Your task to perform on an android device: clear all cookies in the chrome app Image 0: 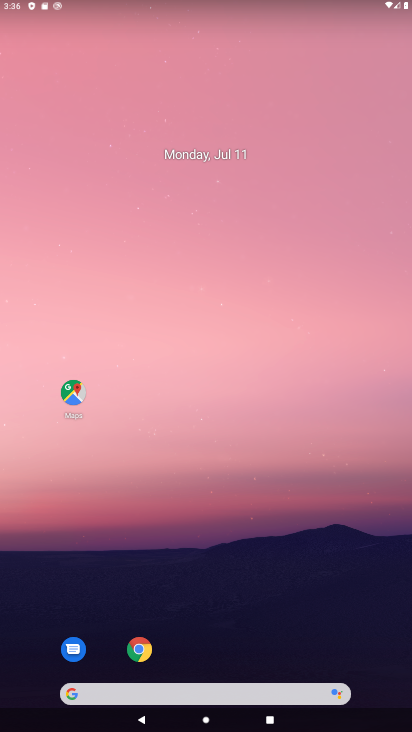
Step 0: drag from (196, 611) to (158, 181)
Your task to perform on an android device: clear all cookies in the chrome app Image 1: 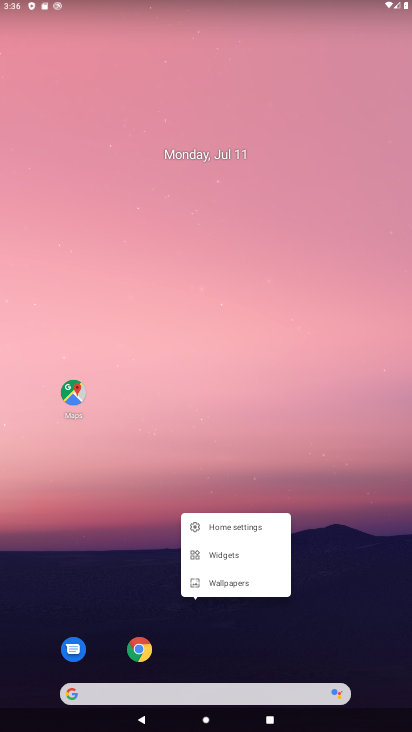
Step 1: click (136, 651)
Your task to perform on an android device: clear all cookies in the chrome app Image 2: 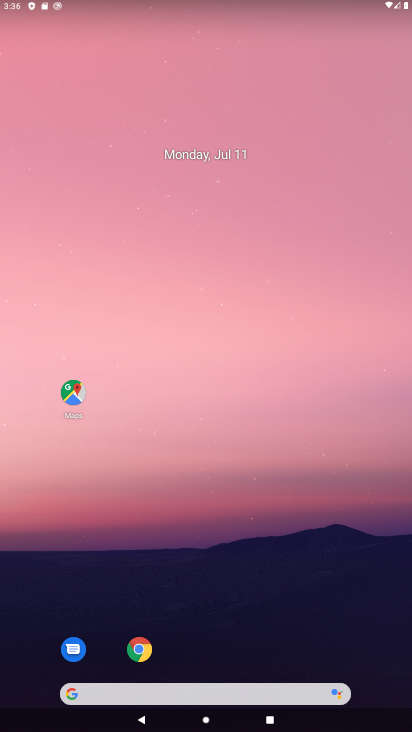
Step 2: drag from (193, 647) to (245, 4)
Your task to perform on an android device: clear all cookies in the chrome app Image 3: 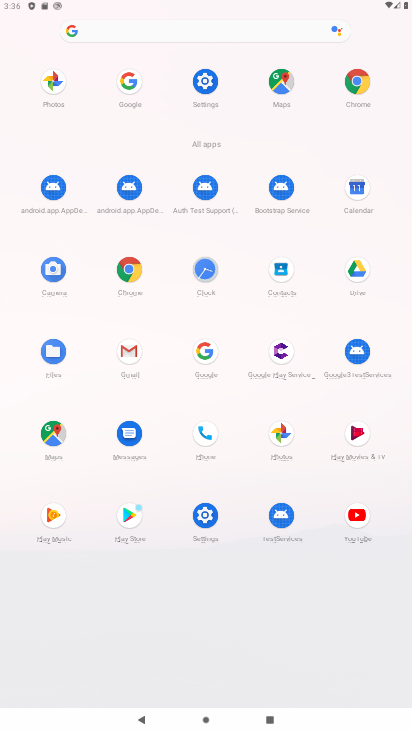
Step 3: click (124, 267)
Your task to perform on an android device: clear all cookies in the chrome app Image 4: 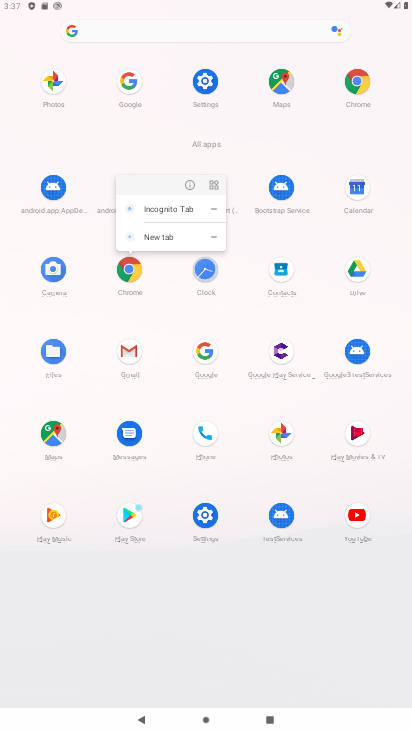
Step 4: click (184, 185)
Your task to perform on an android device: clear all cookies in the chrome app Image 5: 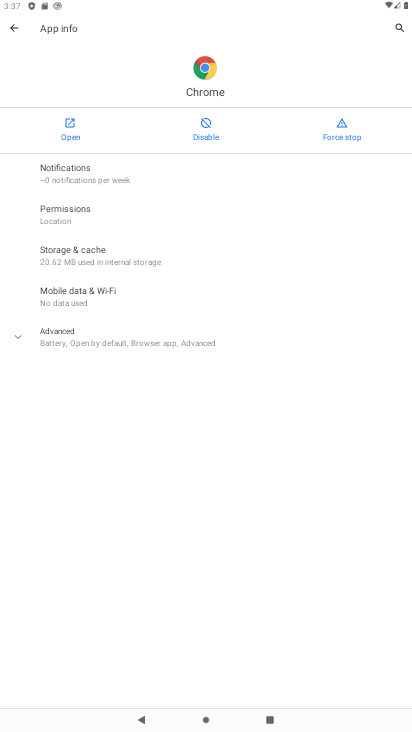
Step 5: click (71, 132)
Your task to perform on an android device: clear all cookies in the chrome app Image 6: 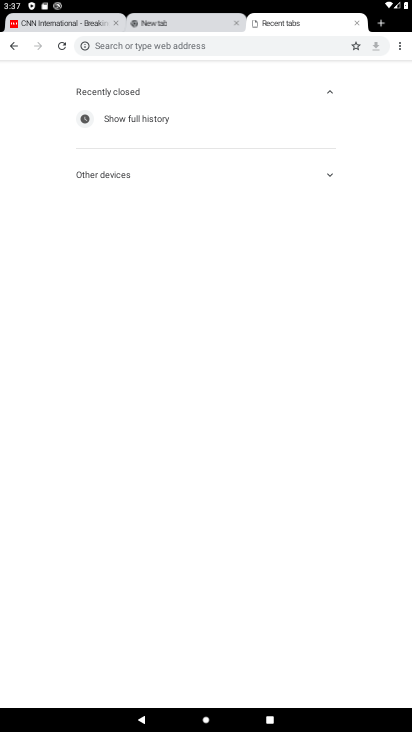
Step 6: click (404, 45)
Your task to perform on an android device: clear all cookies in the chrome app Image 7: 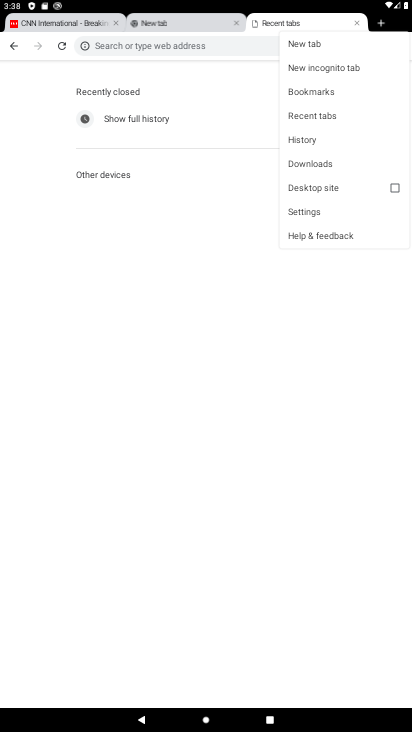
Step 7: drag from (206, 505) to (203, 296)
Your task to perform on an android device: clear all cookies in the chrome app Image 8: 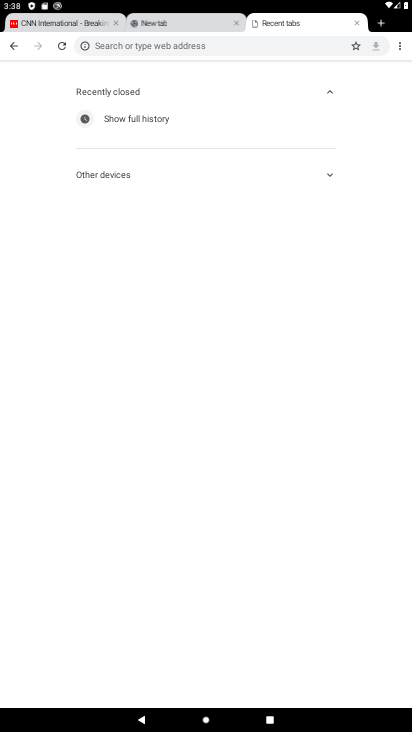
Step 8: click (400, 42)
Your task to perform on an android device: clear all cookies in the chrome app Image 9: 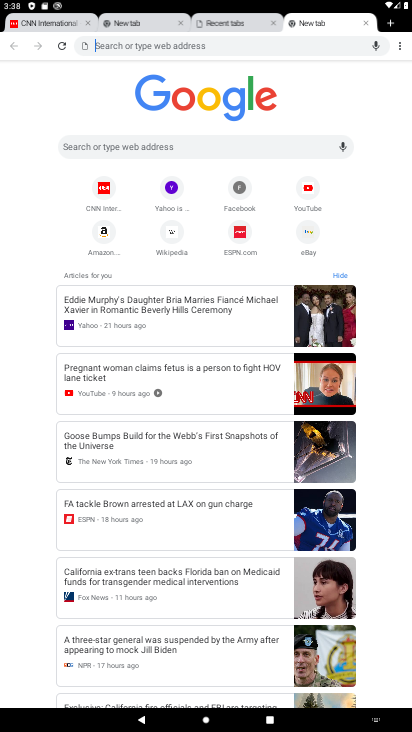
Step 9: click (393, 40)
Your task to perform on an android device: clear all cookies in the chrome app Image 10: 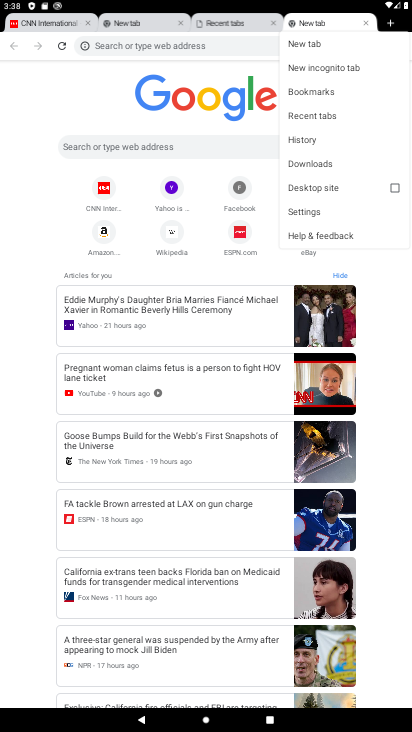
Step 10: click (318, 214)
Your task to perform on an android device: clear all cookies in the chrome app Image 11: 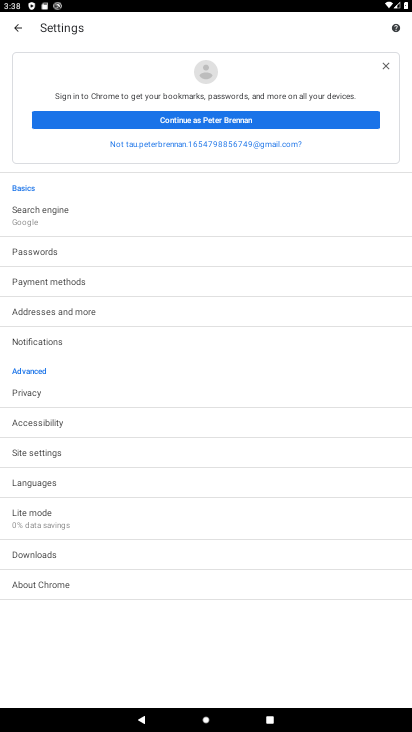
Step 11: drag from (215, 478) to (235, 340)
Your task to perform on an android device: clear all cookies in the chrome app Image 12: 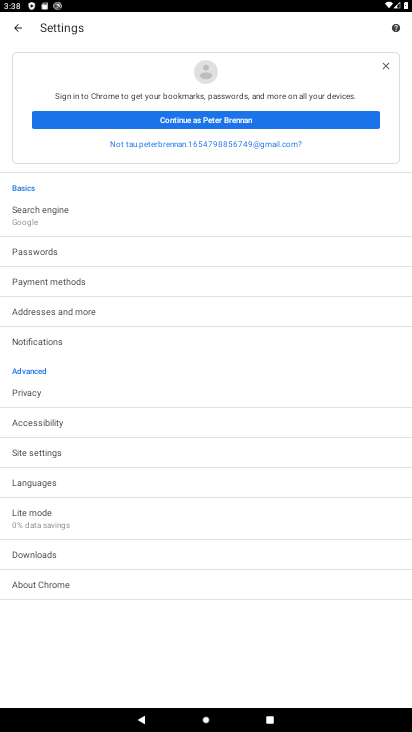
Step 12: click (21, 26)
Your task to perform on an android device: clear all cookies in the chrome app Image 13: 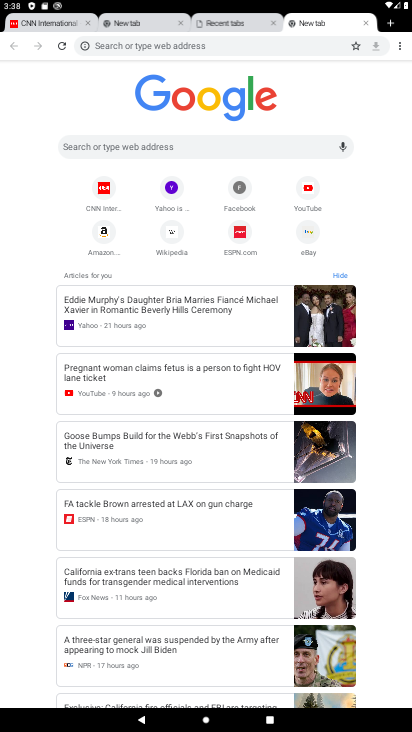
Step 13: click (395, 42)
Your task to perform on an android device: clear all cookies in the chrome app Image 14: 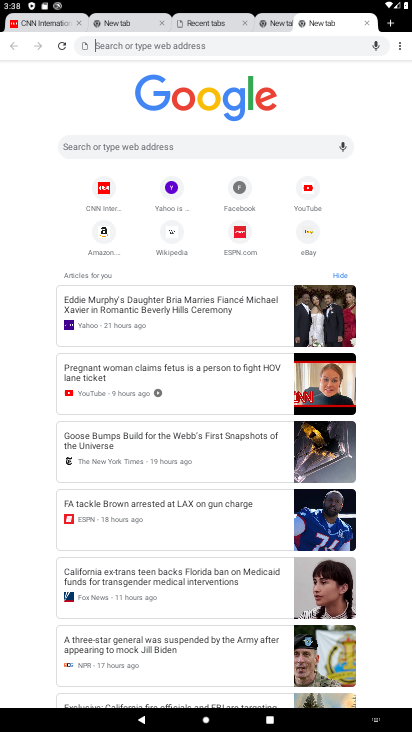
Step 14: drag from (397, 43) to (332, 138)
Your task to perform on an android device: clear all cookies in the chrome app Image 15: 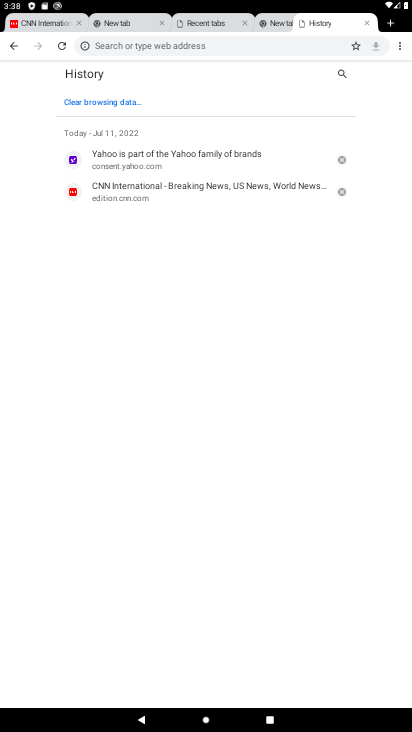
Step 15: drag from (278, 425) to (286, 151)
Your task to perform on an android device: clear all cookies in the chrome app Image 16: 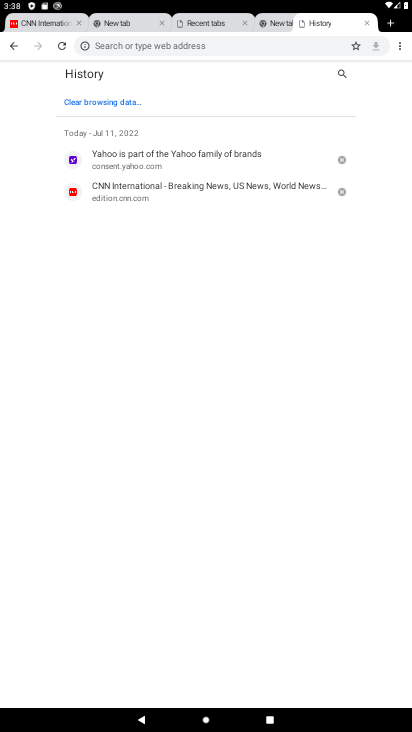
Step 16: click (111, 105)
Your task to perform on an android device: clear all cookies in the chrome app Image 17: 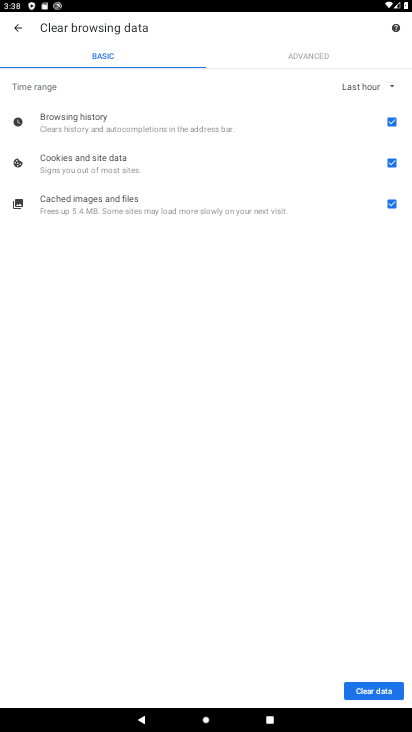
Step 17: click (393, 122)
Your task to perform on an android device: clear all cookies in the chrome app Image 18: 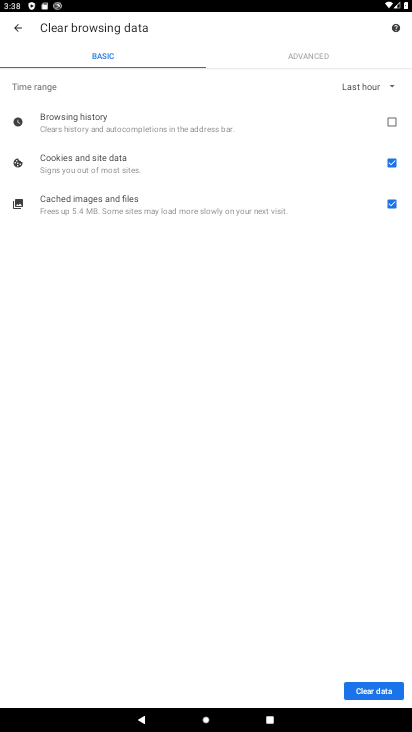
Step 18: click (393, 205)
Your task to perform on an android device: clear all cookies in the chrome app Image 19: 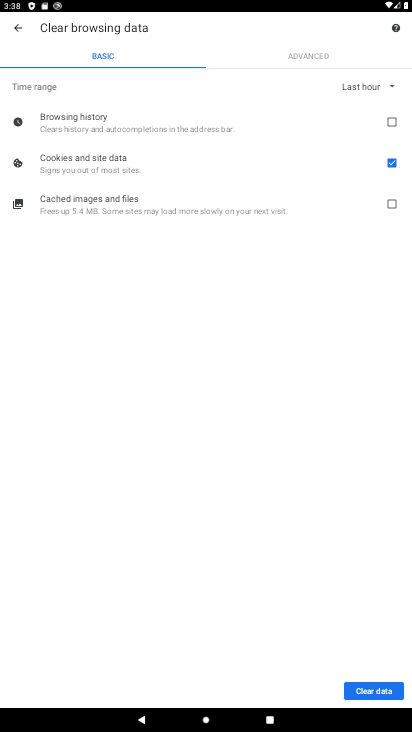
Step 19: click (374, 692)
Your task to perform on an android device: clear all cookies in the chrome app Image 20: 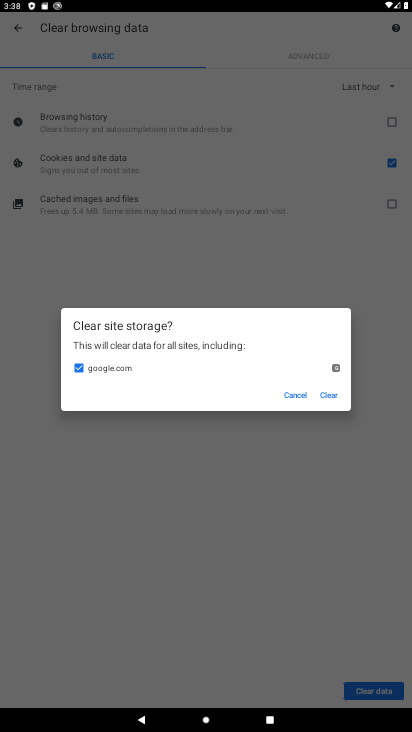
Step 20: click (330, 400)
Your task to perform on an android device: clear all cookies in the chrome app Image 21: 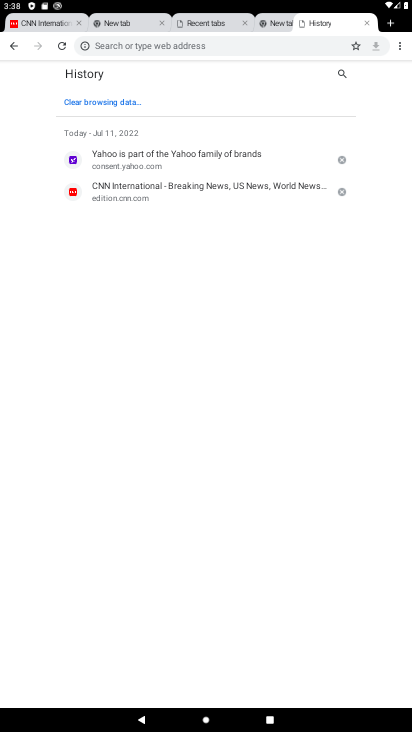
Step 21: task complete